Your task to perform on an android device: open a bookmark in the chrome app Image 0: 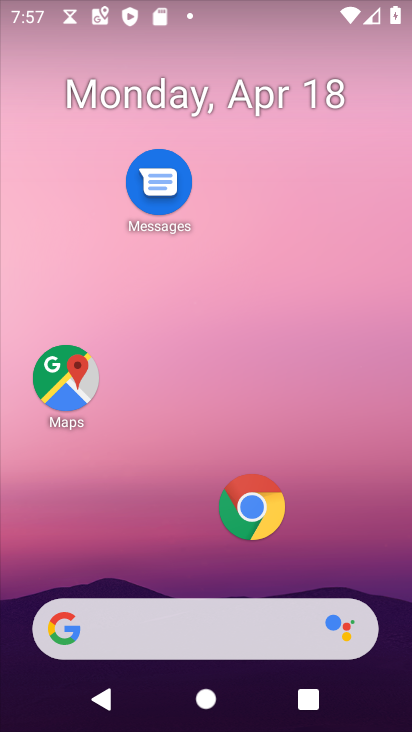
Step 0: click (252, 513)
Your task to perform on an android device: open a bookmark in the chrome app Image 1: 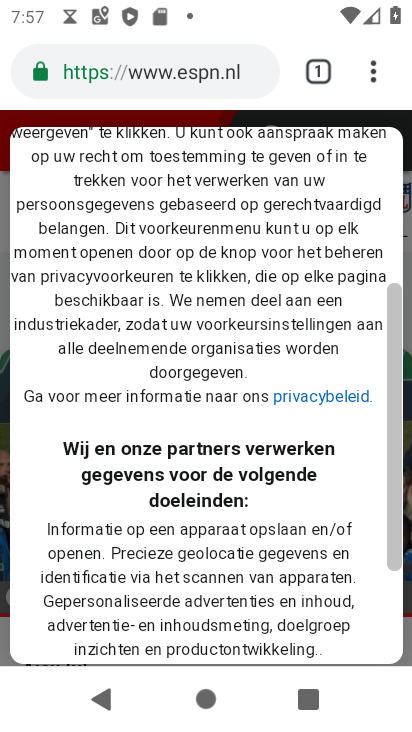
Step 1: click (366, 70)
Your task to perform on an android device: open a bookmark in the chrome app Image 2: 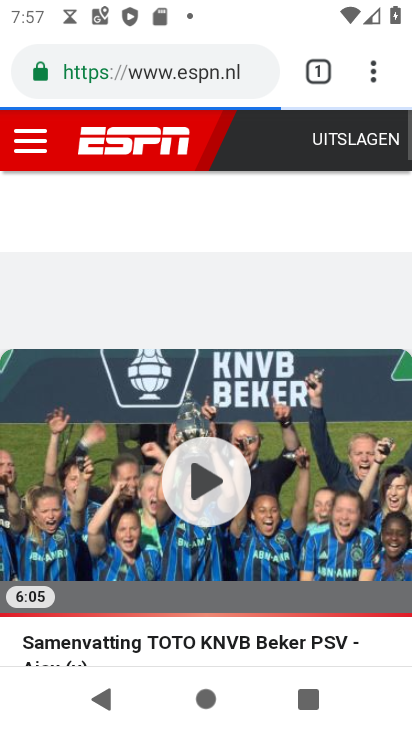
Step 2: click (374, 64)
Your task to perform on an android device: open a bookmark in the chrome app Image 3: 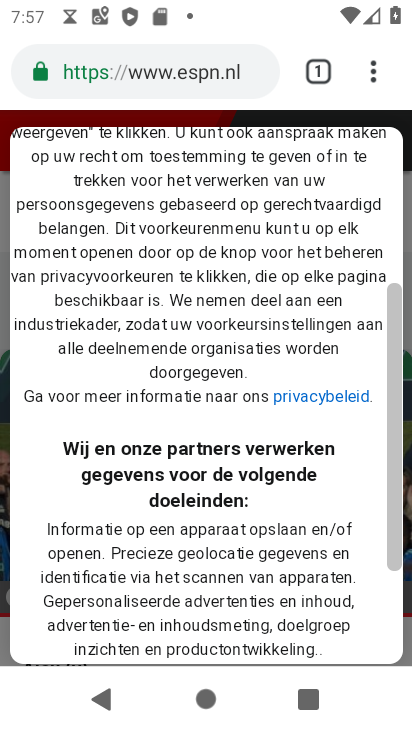
Step 3: click (374, 64)
Your task to perform on an android device: open a bookmark in the chrome app Image 4: 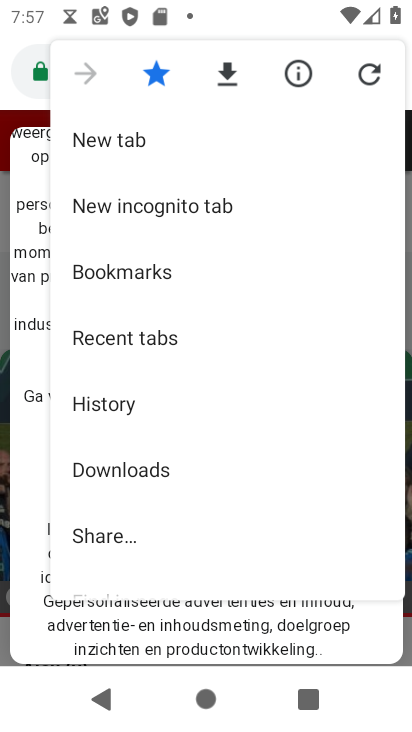
Step 4: click (156, 277)
Your task to perform on an android device: open a bookmark in the chrome app Image 5: 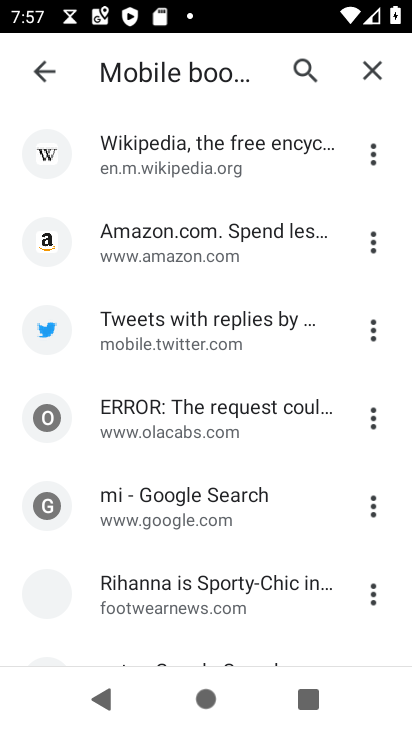
Step 5: task complete